Your task to perform on an android device: What's the news this week? Image 0: 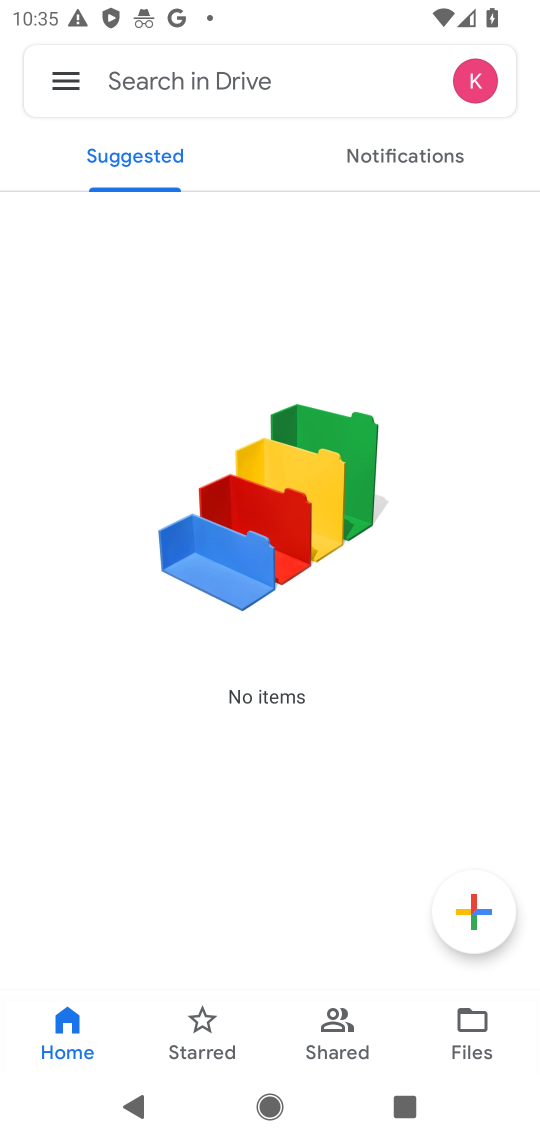
Step 0: press home button
Your task to perform on an android device: What's the news this week? Image 1: 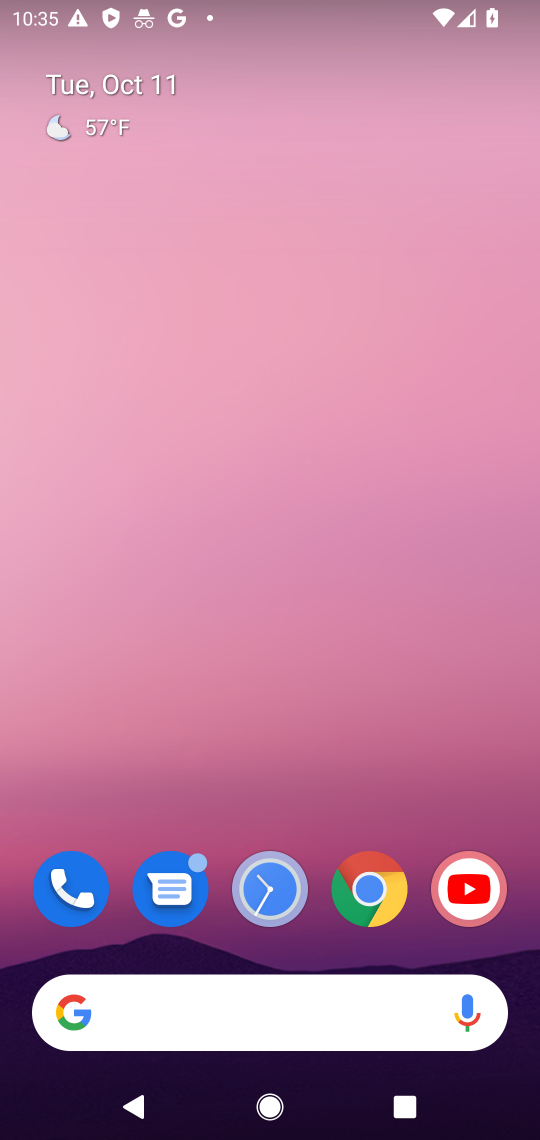
Step 1: click (195, 1026)
Your task to perform on an android device: What's the news this week? Image 2: 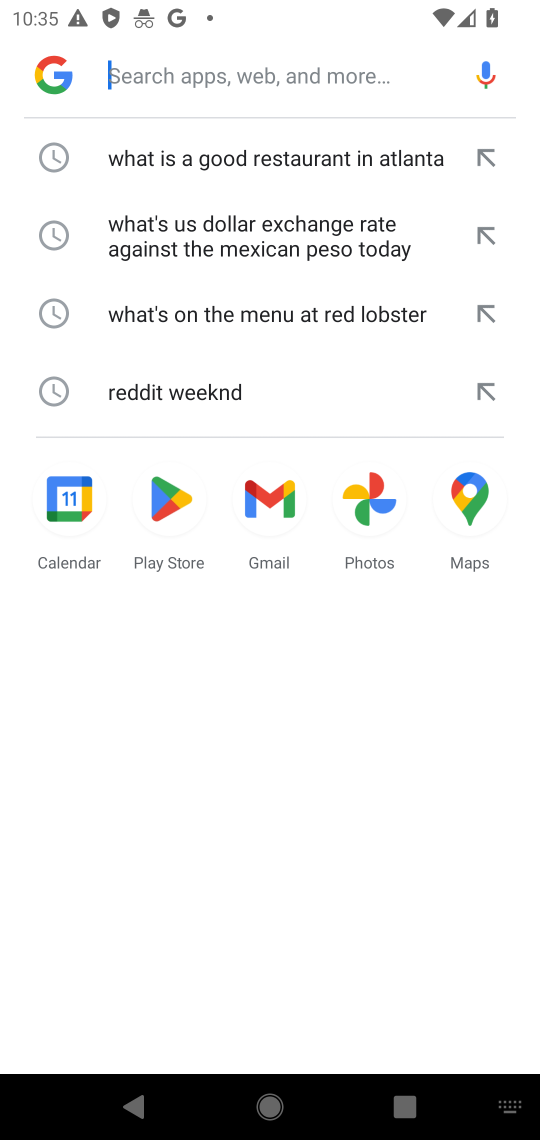
Step 2: click (229, 87)
Your task to perform on an android device: What's the news this week? Image 3: 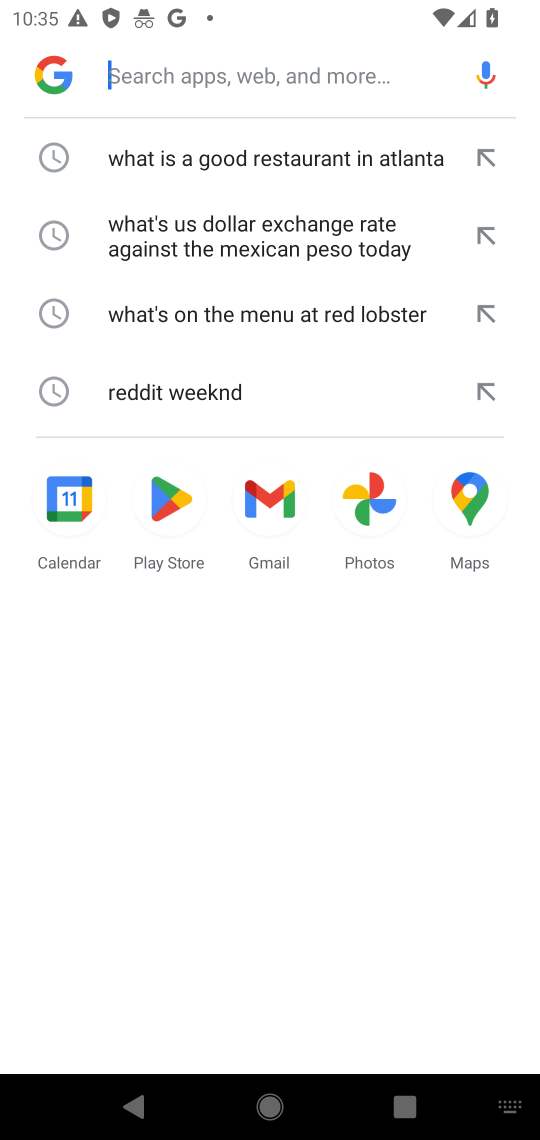
Step 3: type "What's the news this week?"
Your task to perform on an android device: What's the news this week? Image 4: 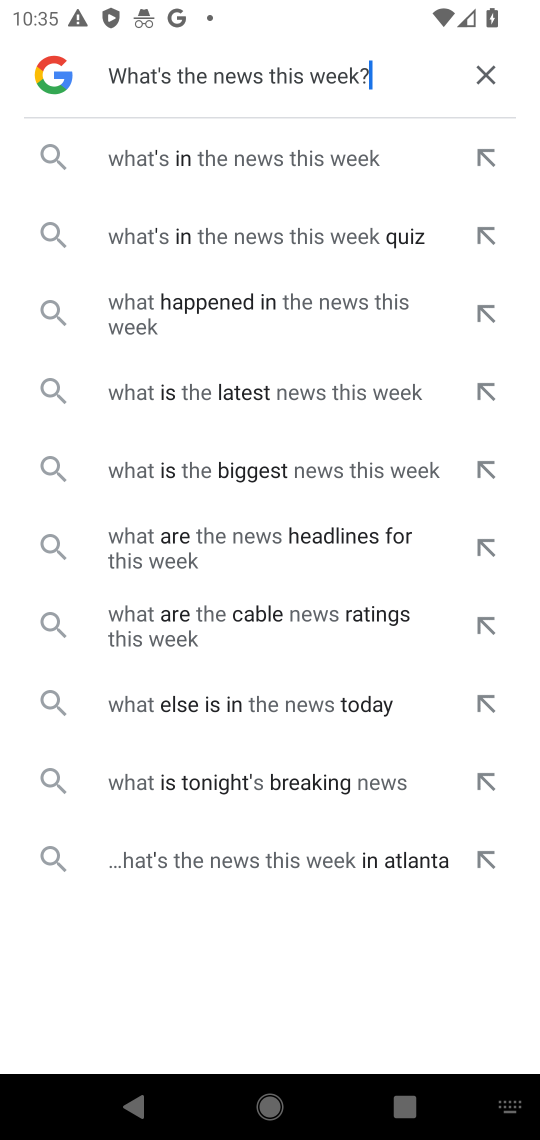
Step 4: click (225, 152)
Your task to perform on an android device: What's the news this week? Image 5: 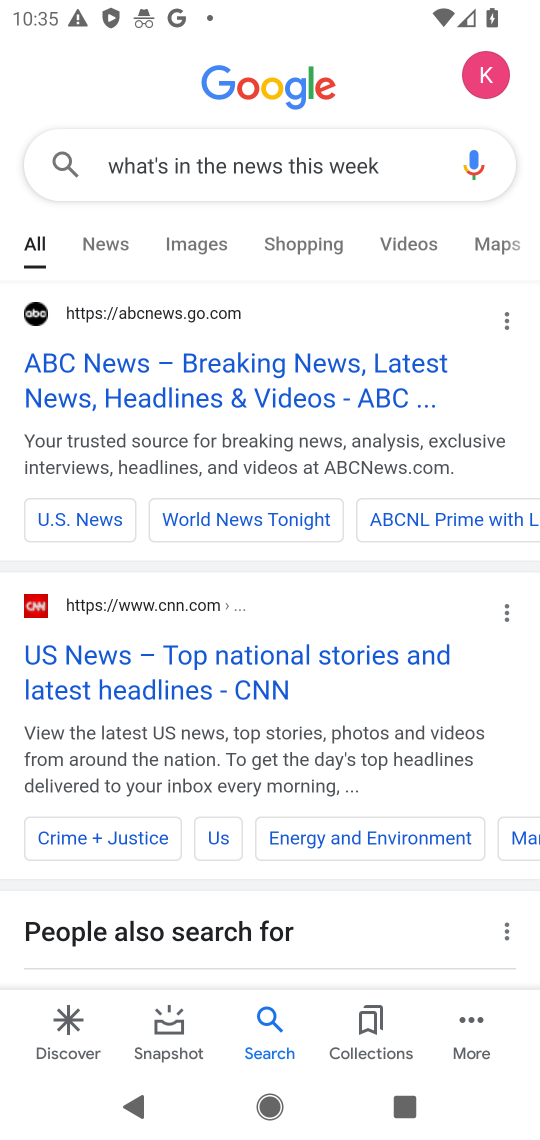
Step 5: task complete